Your task to perform on an android device: Open the calendar app, open the side menu, and click the "Day" option Image 0: 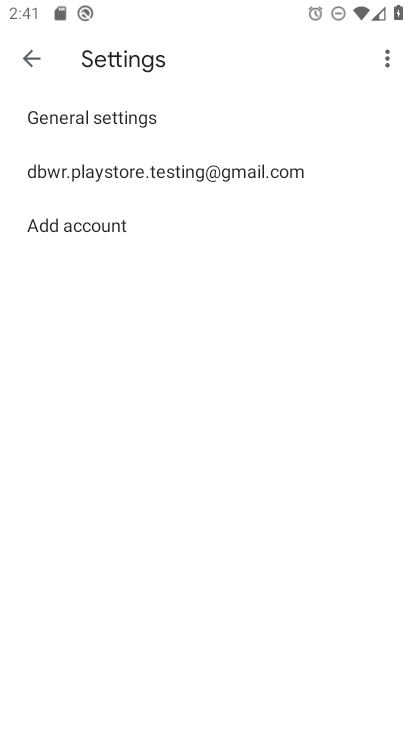
Step 0: press home button
Your task to perform on an android device: Open the calendar app, open the side menu, and click the "Day" option Image 1: 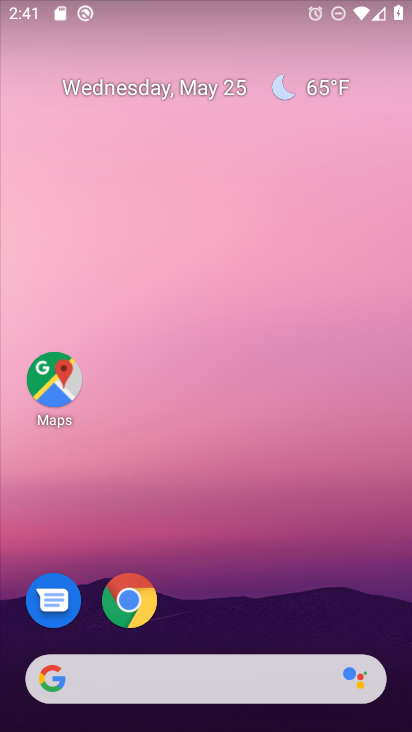
Step 1: drag from (315, 569) to (336, 104)
Your task to perform on an android device: Open the calendar app, open the side menu, and click the "Day" option Image 2: 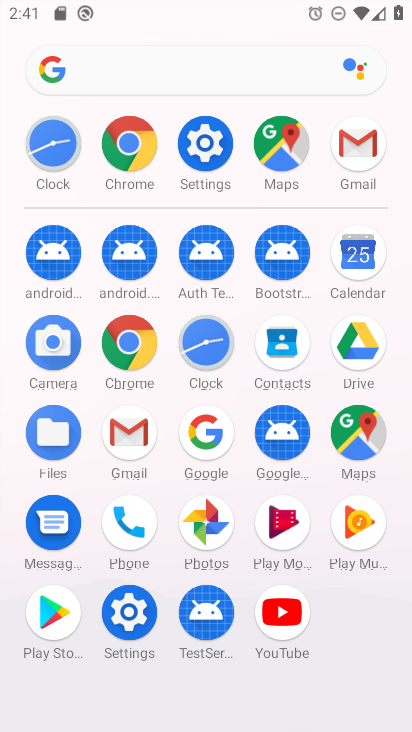
Step 2: click (361, 253)
Your task to perform on an android device: Open the calendar app, open the side menu, and click the "Day" option Image 3: 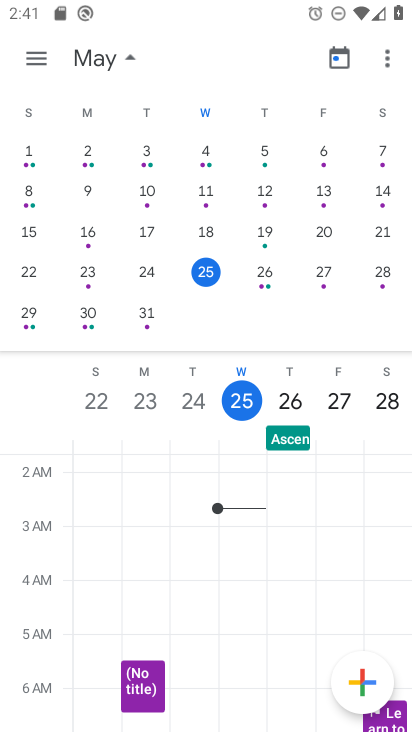
Step 3: click (43, 51)
Your task to perform on an android device: Open the calendar app, open the side menu, and click the "Day" option Image 4: 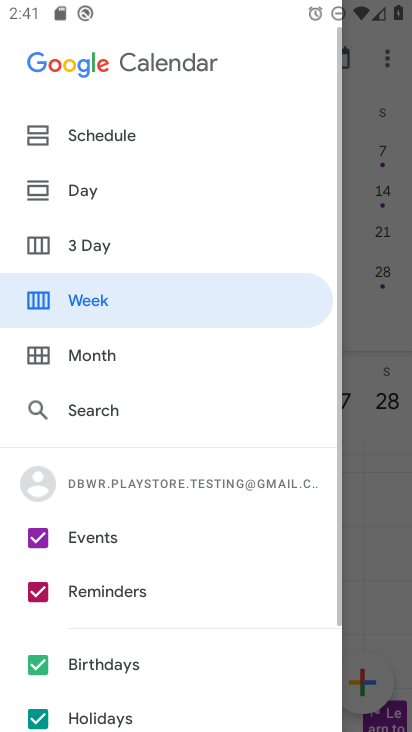
Step 4: click (99, 192)
Your task to perform on an android device: Open the calendar app, open the side menu, and click the "Day" option Image 5: 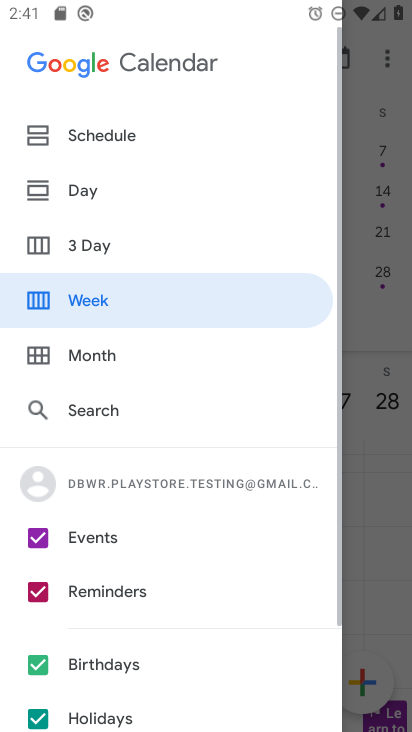
Step 5: click (41, 190)
Your task to perform on an android device: Open the calendar app, open the side menu, and click the "Day" option Image 6: 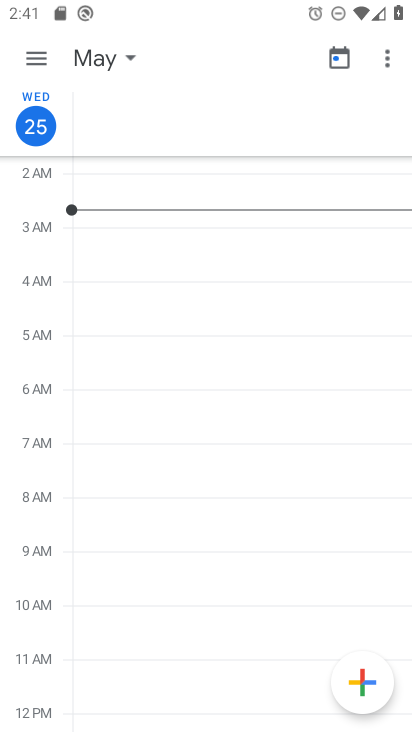
Step 6: task complete